Your task to perform on an android device: toggle sleep mode Image 0: 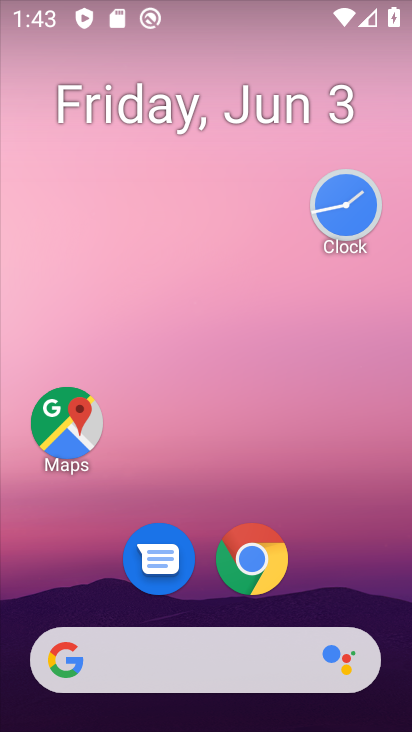
Step 0: drag from (352, 599) to (330, 297)
Your task to perform on an android device: toggle sleep mode Image 1: 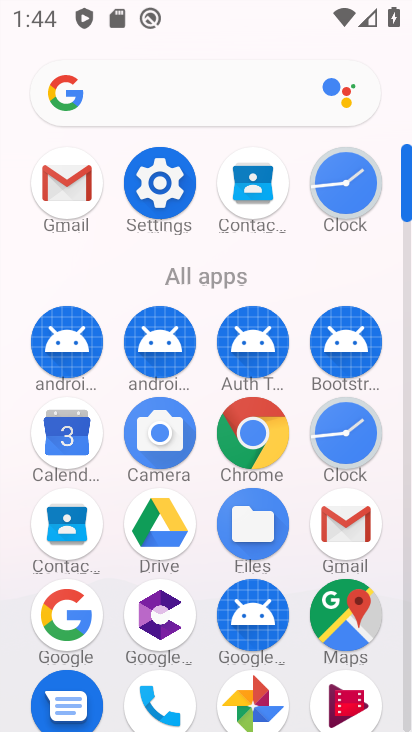
Step 1: drag from (216, 0) to (223, 674)
Your task to perform on an android device: toggle sleep mode Image 2: 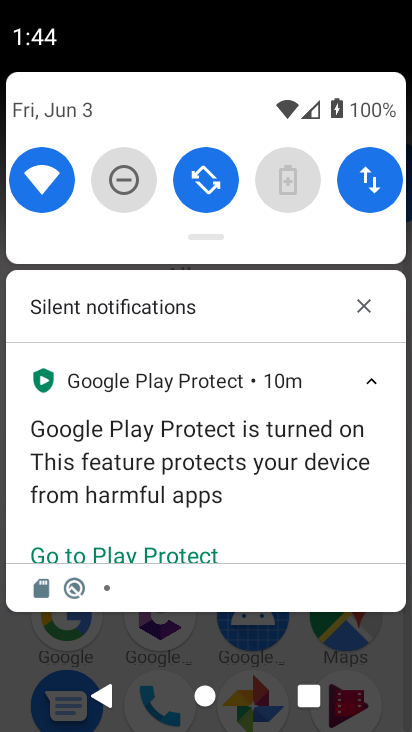
Step 2: drag from (238, 244) to (238, 729)
Your task to perform on an android device: toggle sleep mode Image 3: 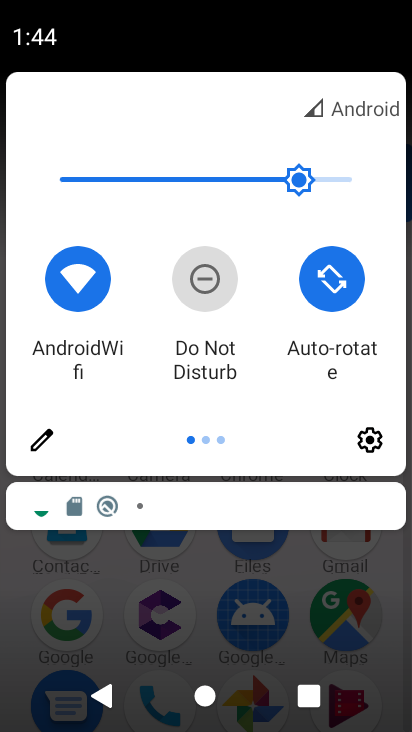
Step 3: click (49, 446)
Your task to perform on an android device: toggle sleep mode Image 4: 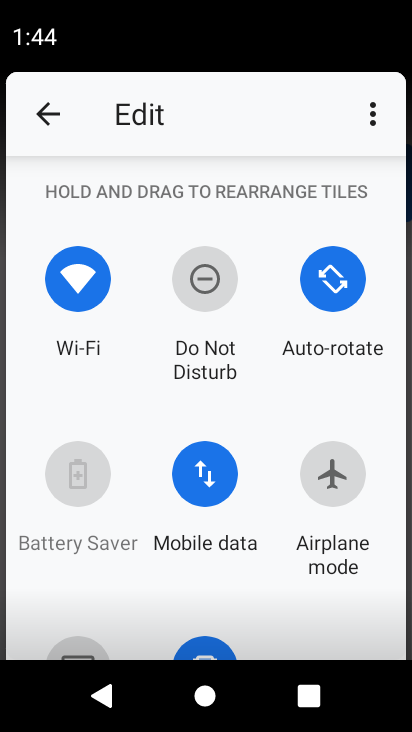
Step 4: task complete